Your task to perform on an android device: turn off improve location accuracy Image 0: 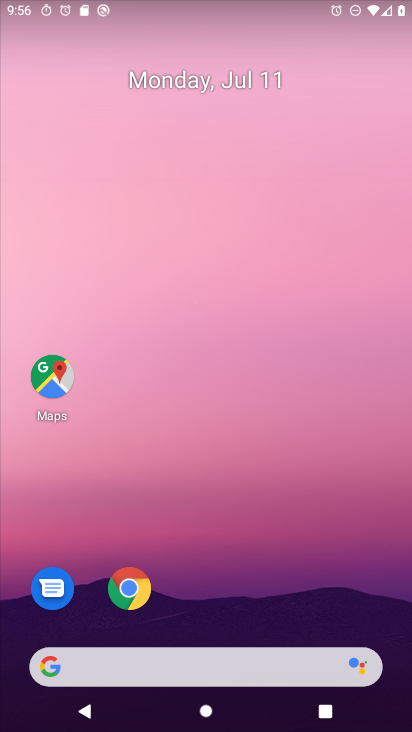
Step 0: drag from (170, 679) to (326, 24)
Your task to perform on an android device: turn off improve location accuracy Image 1: 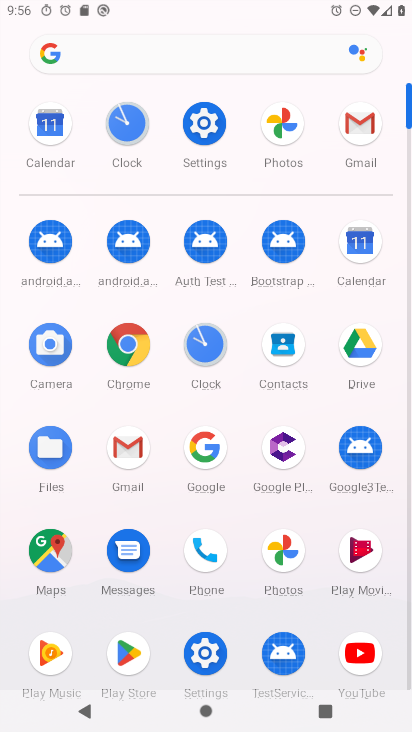
Step 1: click (212, 127)
Your task to perform on an android device: turn off improve location accuracy Image 2: 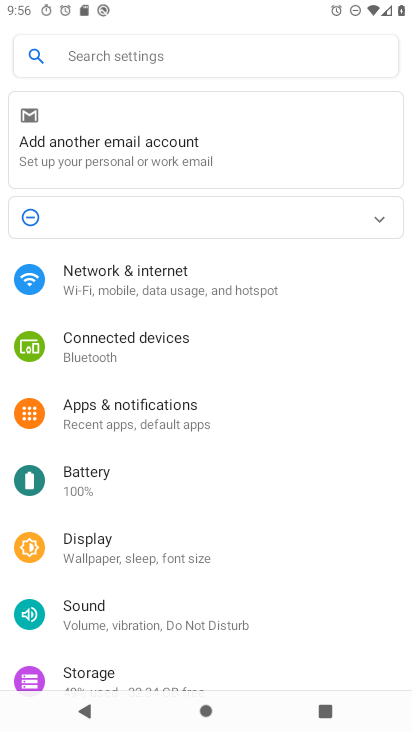
Step 2: drag from (232, 510) to (292, 207)
Your task to perform on an android device: turn off improve location accuracy Image 3: 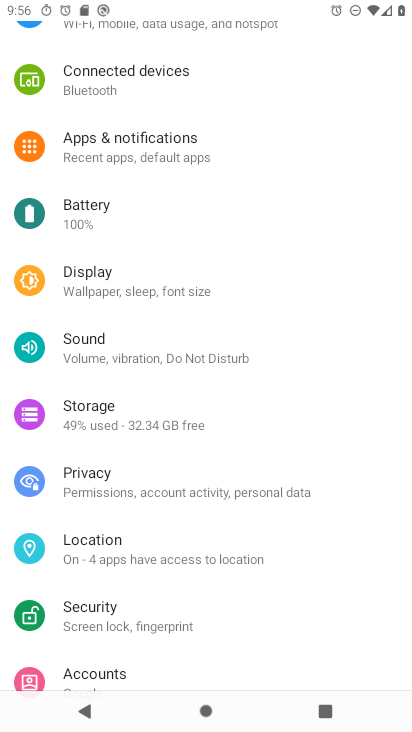
Step 3: click (138, 563)
Your task to perform on an android device: turn off improve location accuracy Image 4: 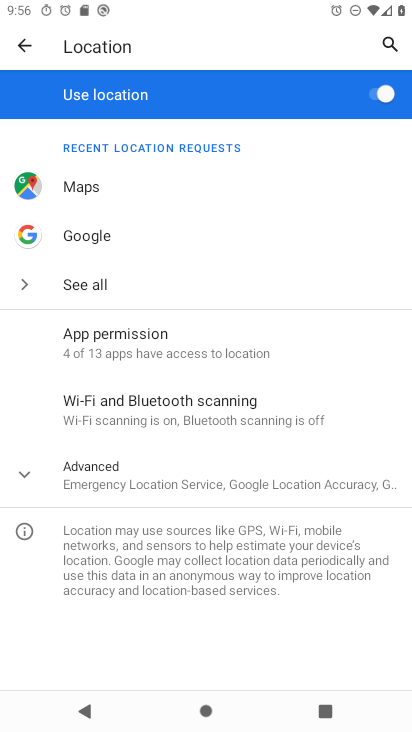
Step 4: click (143, 481)
Your task to perform on an android device: turn off improve location accuracy Image 5: 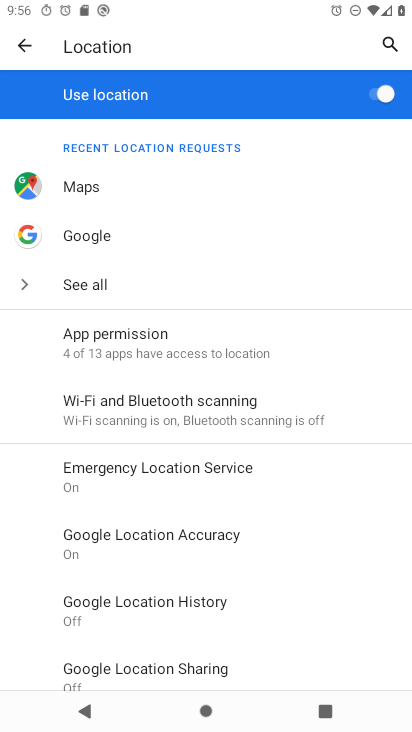
Step 5: click (205, 529)
Your task to perform on an android device: turn off improve location accuracy Image 6: 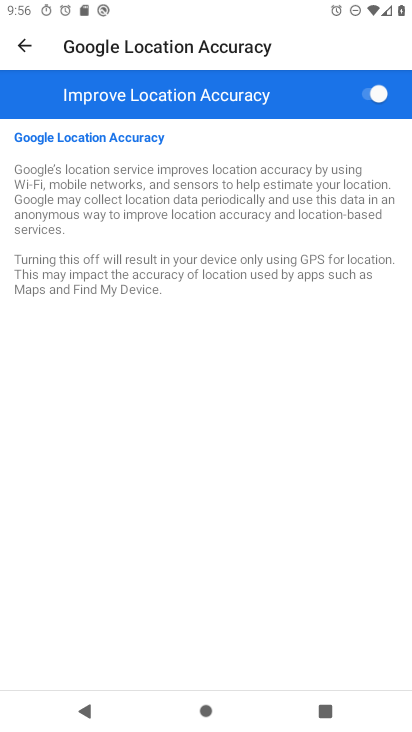
Step 6: click (367, 92)
Your task to perform on an android device: turn off improve location accuracy Image 7: 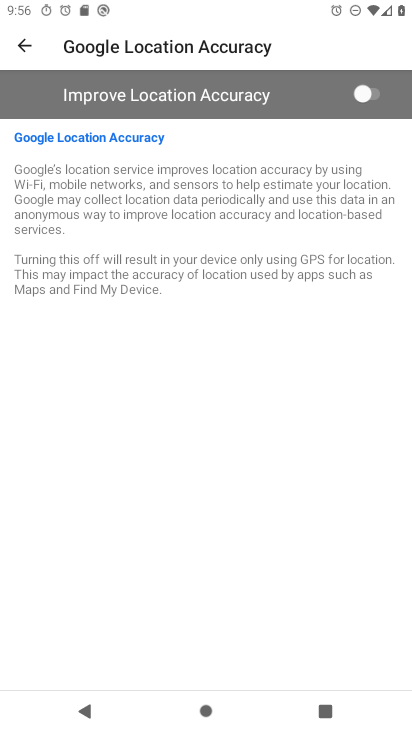
Step 7: task complete